Your task to perform on an android device: Open sound settings Image 0: 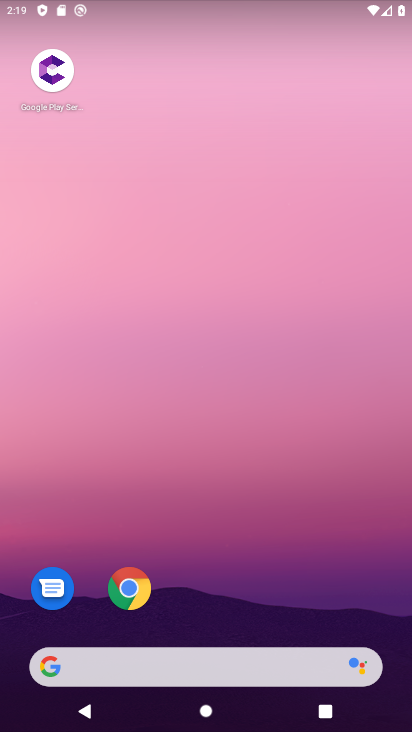
Step 0: drag from (183, 491) to (191, 19)
Your task to perform on an android device: Open sound settings Image 1: 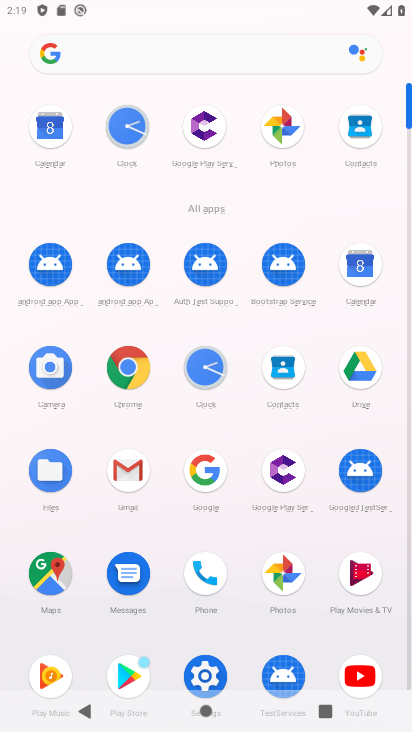
Step 1: click (200, 677)
Your task to perform on an android device: Open sound settings Image 2: 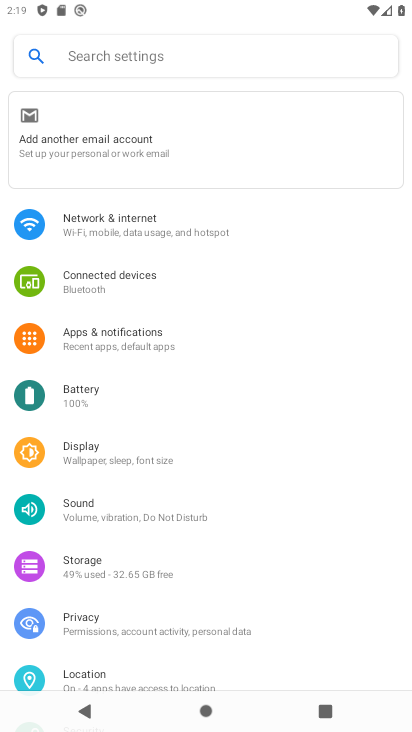
Step 2: click (79, 511)
Your task to perform on an android device: Open sound settings Image 3: 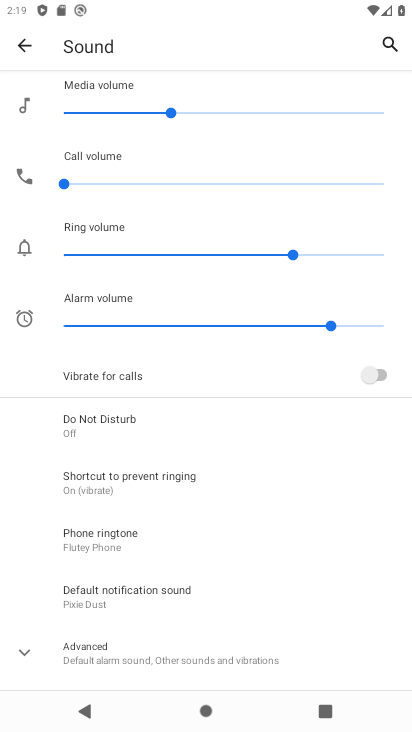
Step 3: task complete